Your task to perform on an android device: Open Chrome and go to settings Image 0: 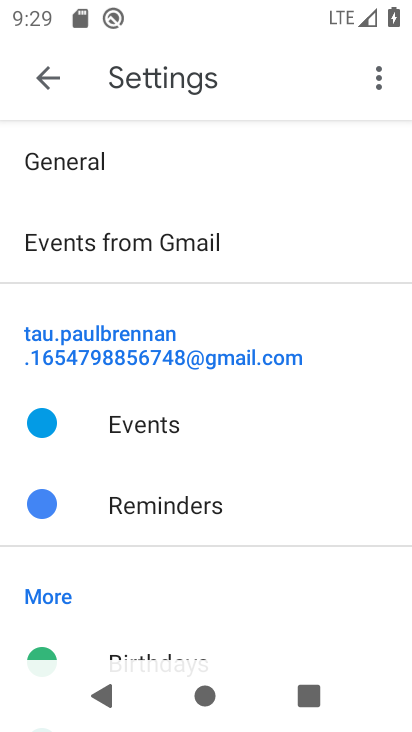
Step 0: press home button
Your task to perform on an android device: Open Chrome and go to settings Image 1: 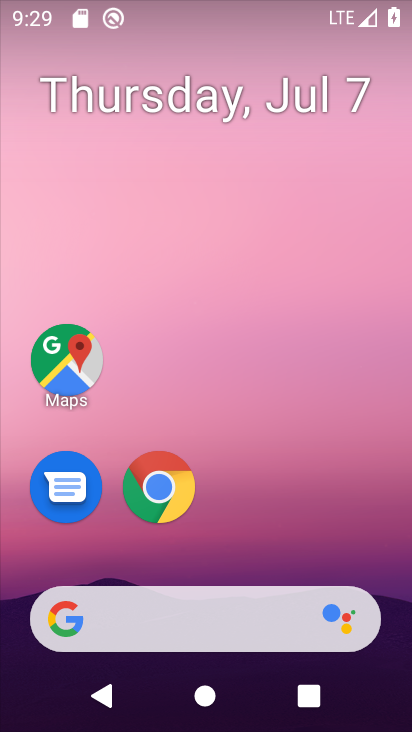
Step 1: drag from (366, 513) to (366, 113)
Your task to perform on an android device: Open Chrome and go to settings Image 2: 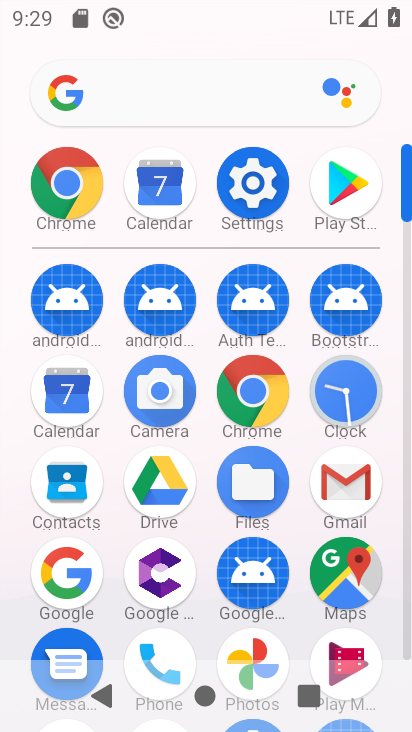
Step 2: click (265, 386)
Your task to perform on an android device: Open Chrome and go to settings Image 3: 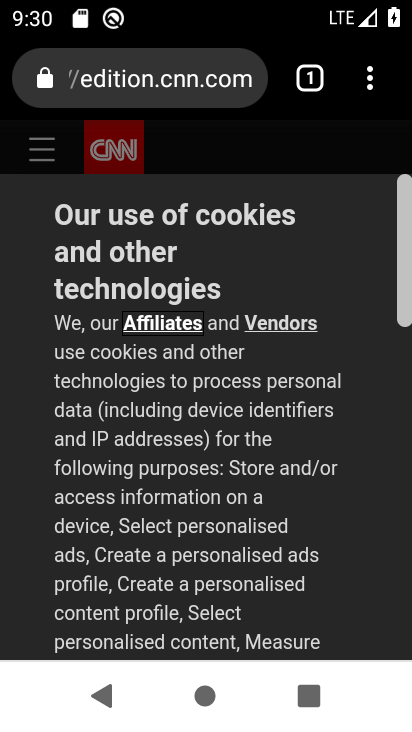
Step 3: click (366, 88)
Your task to perform on an android device: Open Chrome and go to settings Image 4: 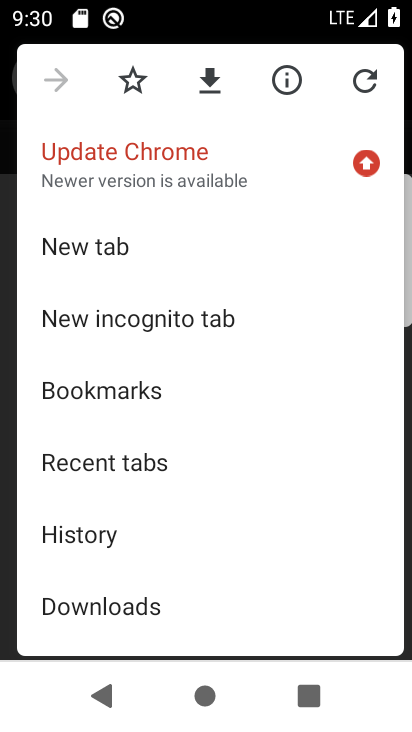
Step 4: drag from (290, 434) to (297, 378)
Your task to perform on an android device: Open Chrome and go to settings Image 5: 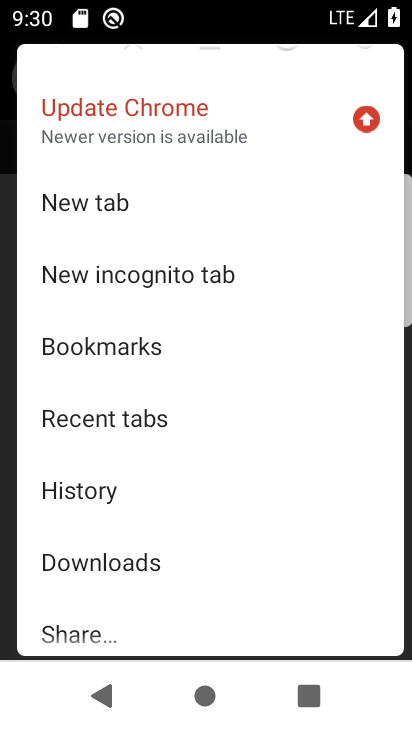
Step 5: drag from (296, 483) to (301, 381)
Your task to perform on an android device: Open Chrome and go to settings Image 6: 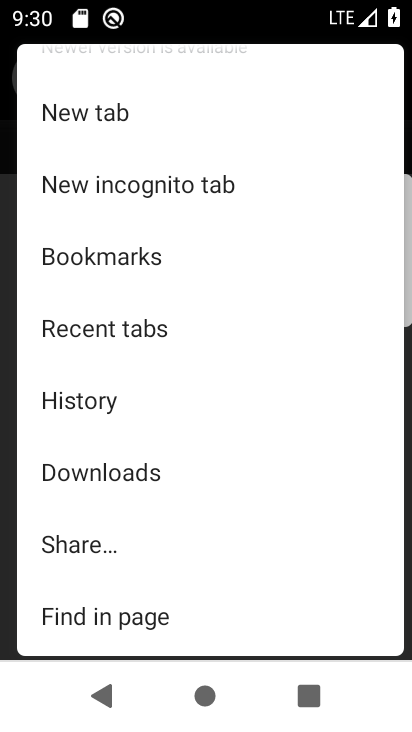
Step 6: drag from (334, 508) to (340, 412)
Your task to perform on an android device: Open Chrome and go to settings Image 7: 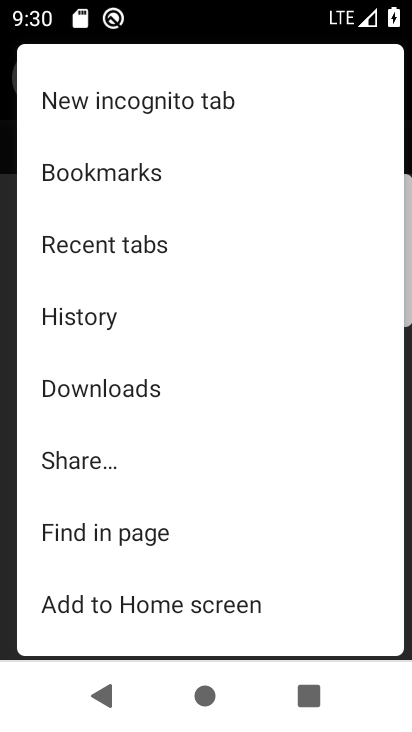
Step 7: drag from (341, 501) to (342, 395)
Your task to perform on an android device: Open Chrome and go to settings Image 8: 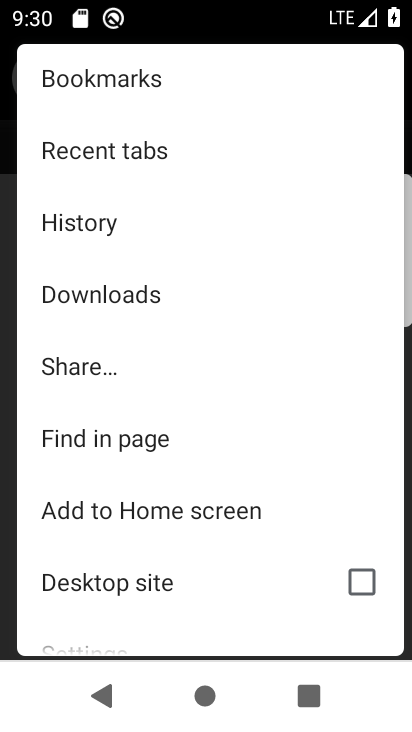
Step 8: drag from (330, 439) to (329, 292)
Your task to perform on an android device: Open Chrome and go to settings Image 9: 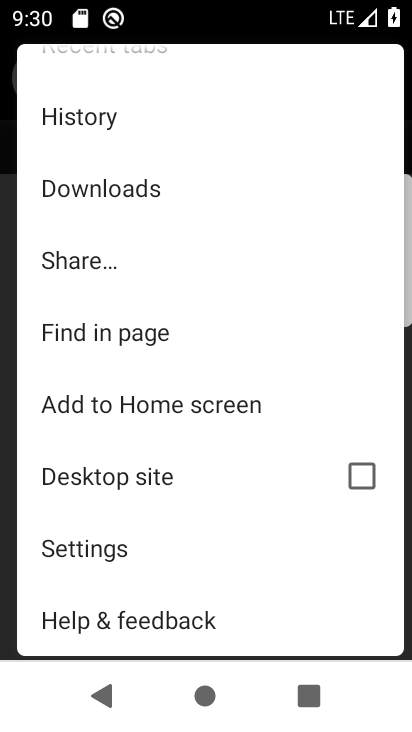
Step 9: drag from (282, 508) to (295, 367)
Your task to perform on an android device: Open Chrome and go to settings Image 10: 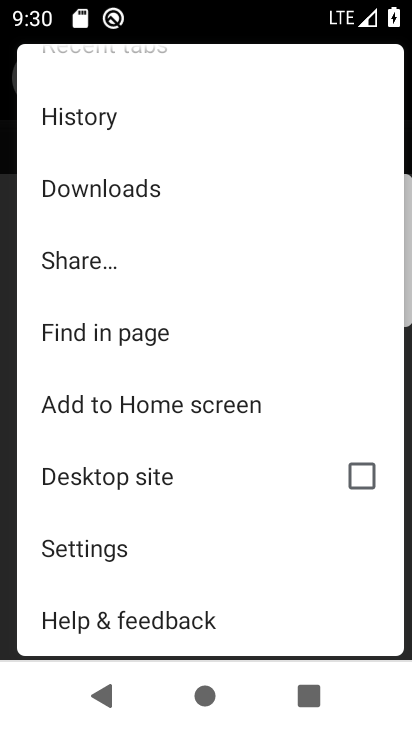
Step 10: click (154, 566)
Your task to perform on an android device: Open Chrome and go to settings Image 11: 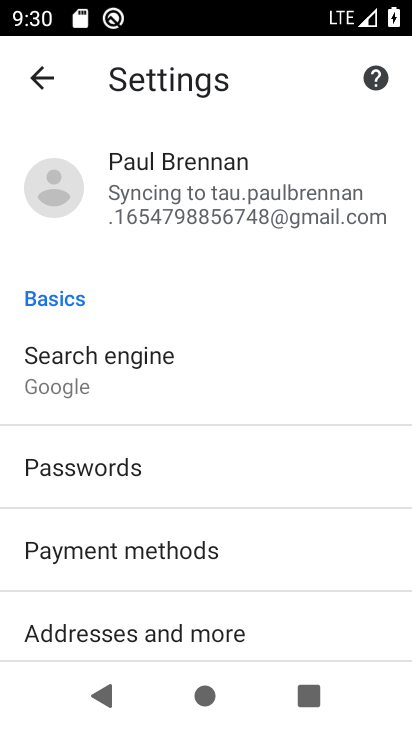
Step 11: task complete